Your task to perform on an android device: open the mobile data screen to see how much data has been used Image 0: 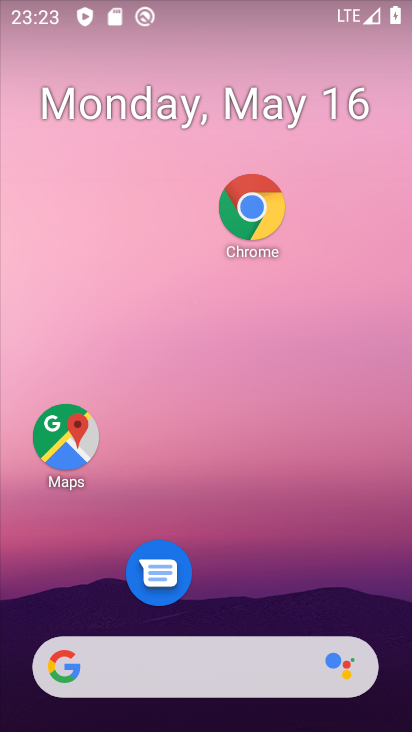
Step 0: drag from (225, 658) to (222, 0)
Your task to perform on an android device: open the mobile data screen to see how much data has been used Image 1: 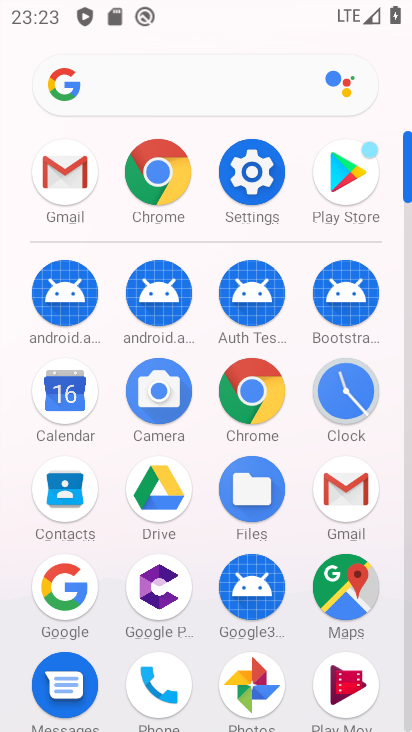
Step 1: click (265, 183)
Your task to perform on an android device: open the mobile data screen to see how much data has been used Image 2: 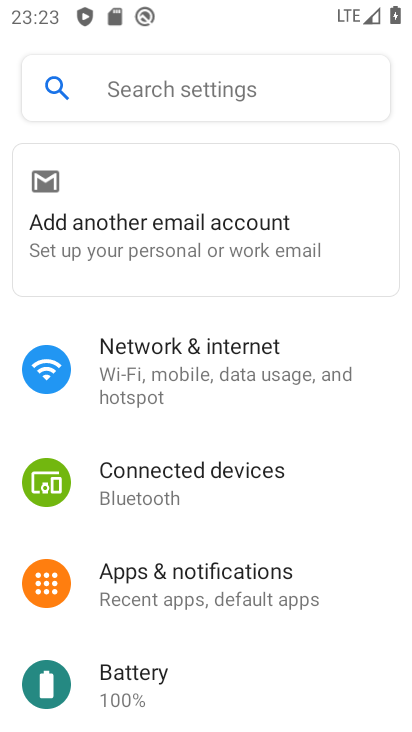
Step 2: click (248, 354)
Your task to perform on an android device: open the mobile data screen to see how much data has been used Image 3: 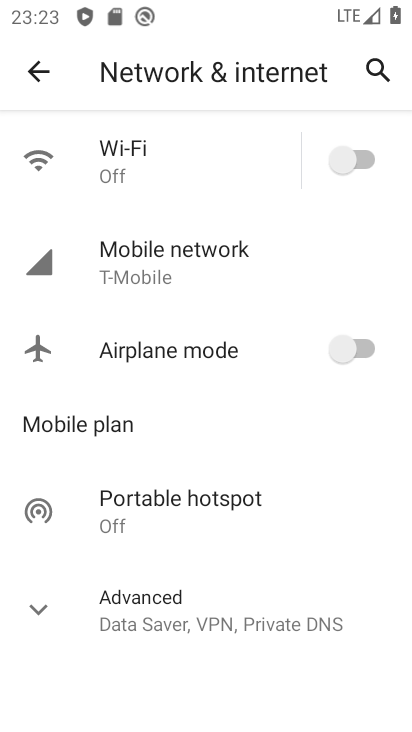
Step 3: click (222, 257)
Your task to perform on an android device: open the mobile data screen to see how much data has been used Image 4: 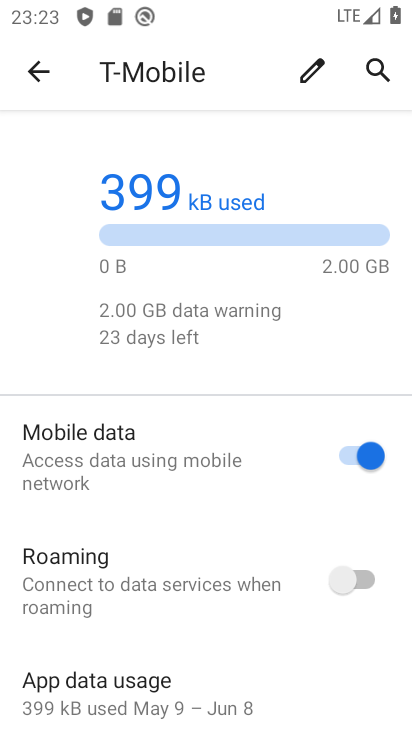
Step 4: task complete